Your task to perform on an android device: see tabs open on other devices in the chrome app Image 0: 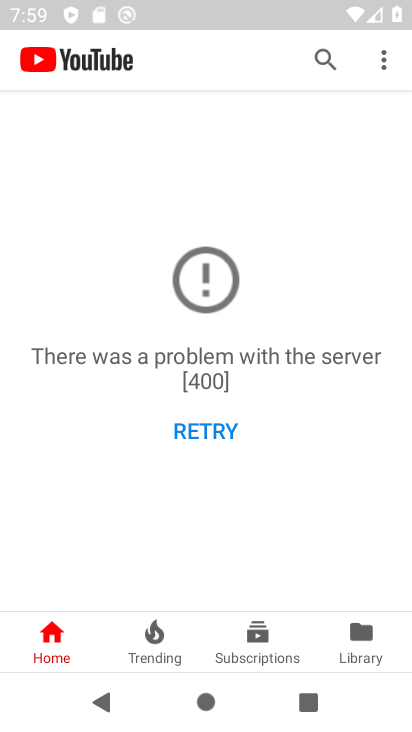
Step 0: press back button
Your task to perform on an android device: see tabs open on other devices in the chrome app Image 1: 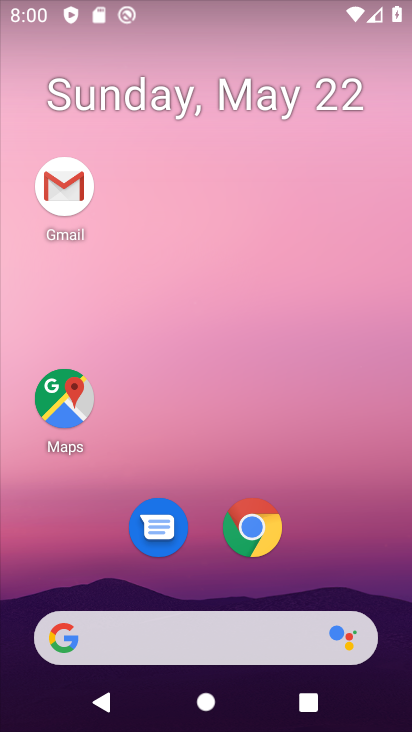
Step 1: click (250, 529)
Your task to perform on an android device: see tabs open on other devices in the chrome app Image 2: 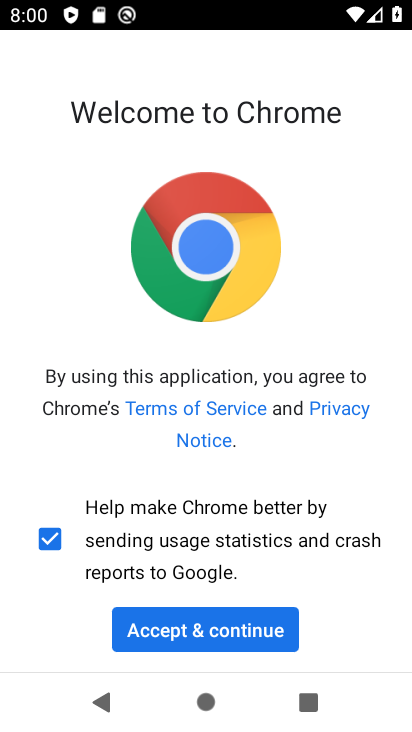
Step 2: click (243, 632)
Your task to perform on an android device: see tabs open on other devices in the chrome app Image 3: 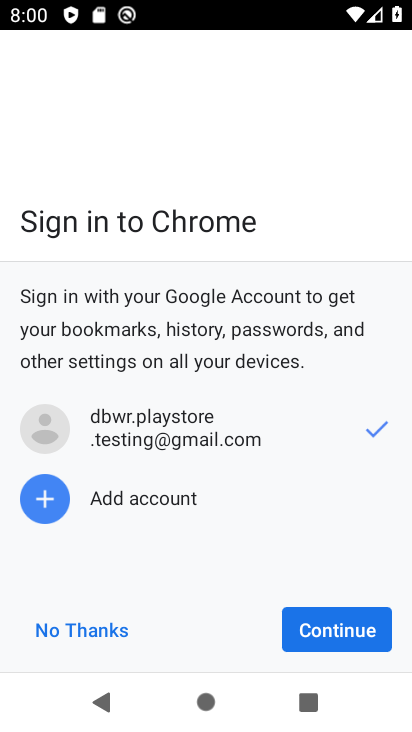
Step 3: click (331, 617)
Your task to perform on an android device: see tabs open on other devices in the chrome app Image 4: 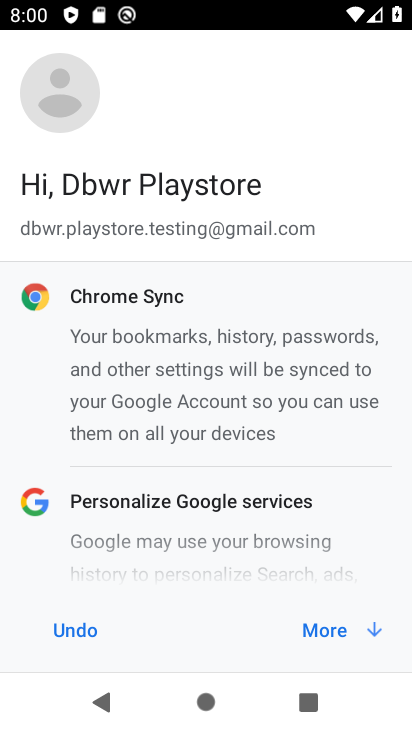
Step 4: click (331, 617)
Your task to perform on an android device: see tabs open on other devices in the chrome app Image 5: 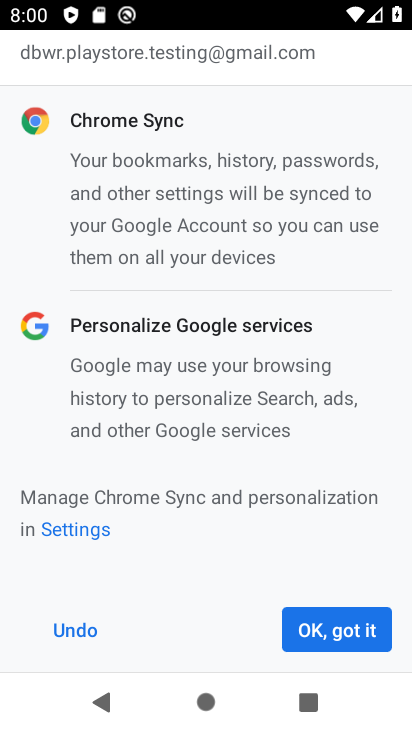
Step 5: click (331, 617)
Your task to perform on an android device: see tabs open on other devices in the chrome app Image 6: 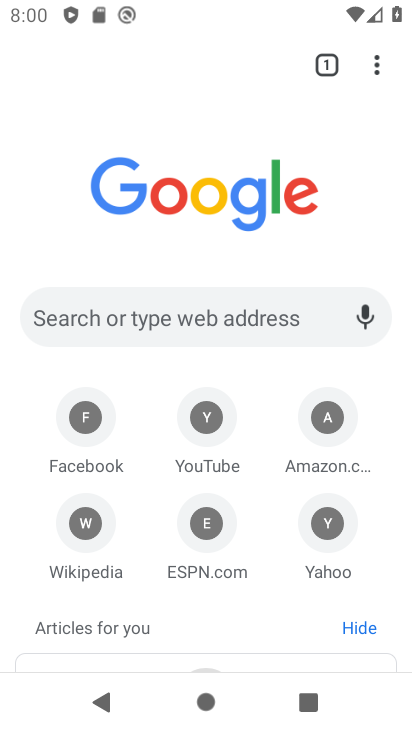
Step 6: click (373, 66)
Your task to perform on an android device: see tabs open on other devices in the chrome app Image 7: 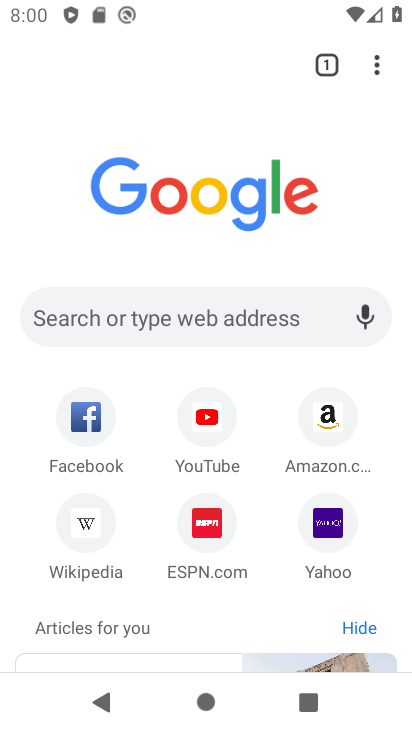
Step 7: click (381, 69)
Your task to perform on an android device: see tabs open on other devices in the chrome app Image 8: 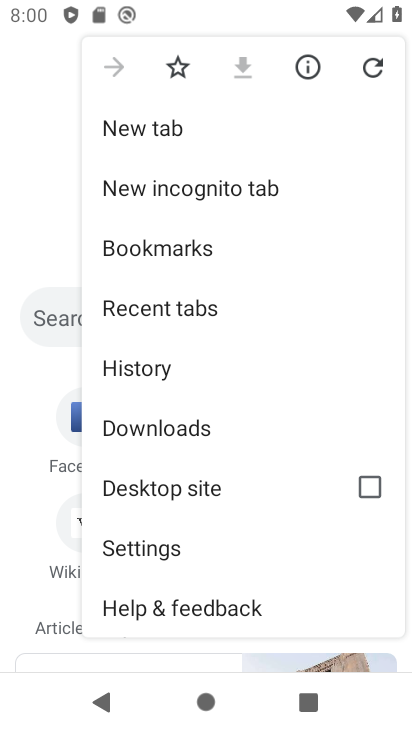
Step 8: click (192, 324)
Your task to perform on an android device: see tabs open on other devices in the chrome app Image 9: 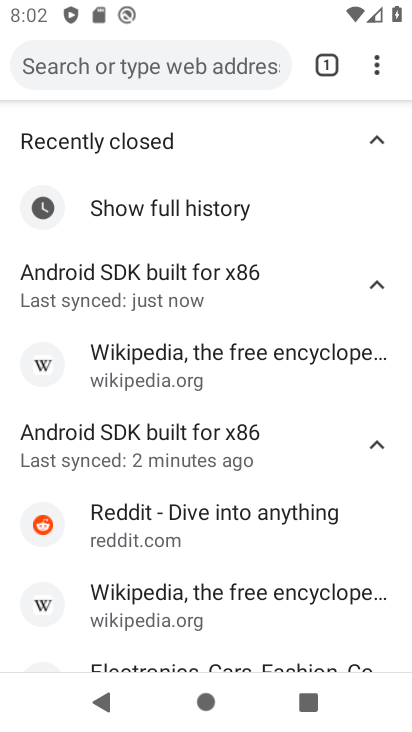
Step 9: task complete